Your task to perform on an android device: Open Chrome and go to settings Image 0: 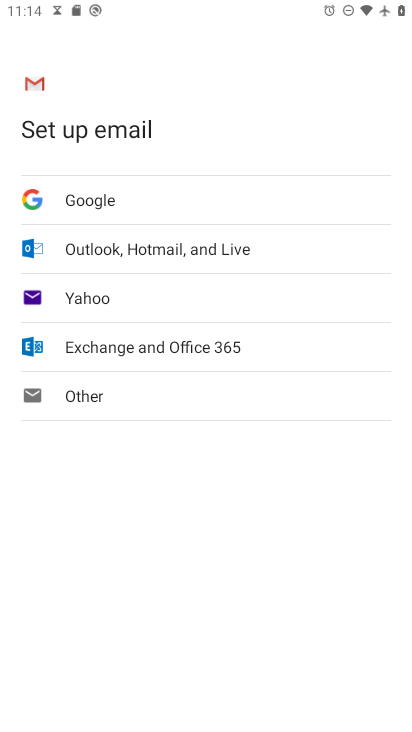
Step 0: press home button
Your task to perform on an android device: Open Chrome and go to settings Image 1: 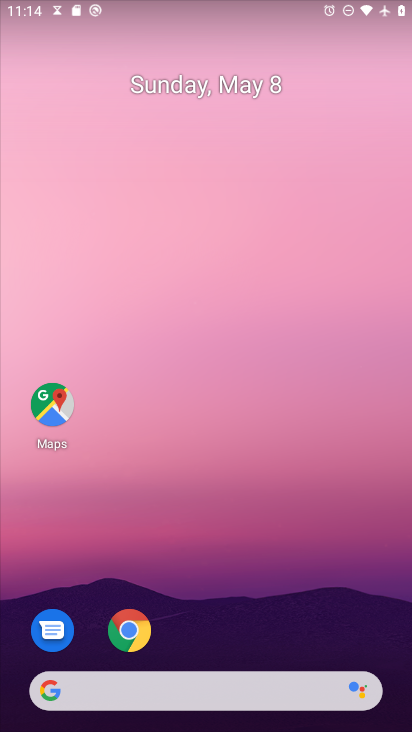
Step 1: drag from (124, 684) to (272, 193)
Your task to perform on an android device: Open Chrome and go to settings Image 2: 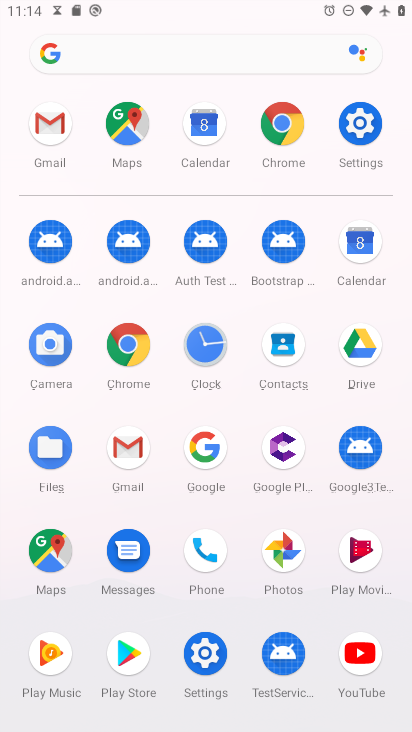
Step 2: click (280, 129)
Your task to perform on an android device: Open Chrome and go to settings Image 3: 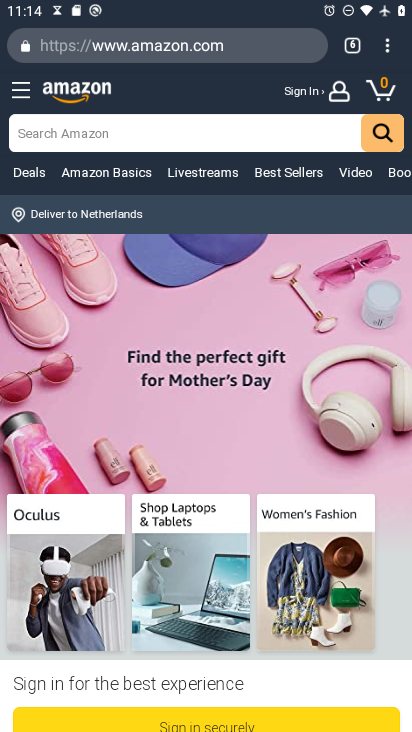
Step 3: task complete